Your task to perform on an android device: Do I have any events this weekend? Image 0: 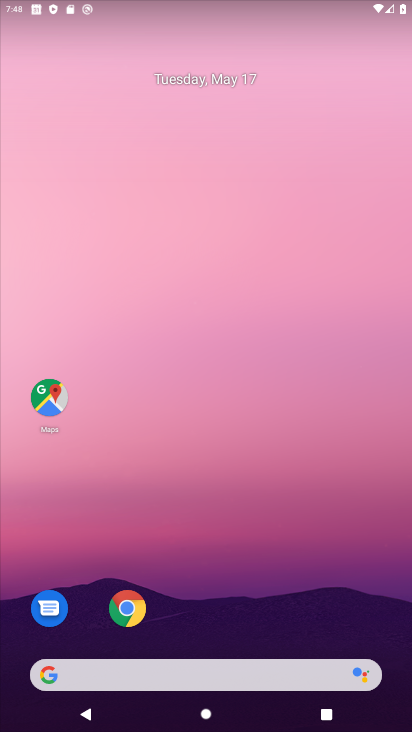
Step 0: drag from (358, 607) to (245, 229)
Your task to perform on an android device: Do I have any events this weekend? Image 1: 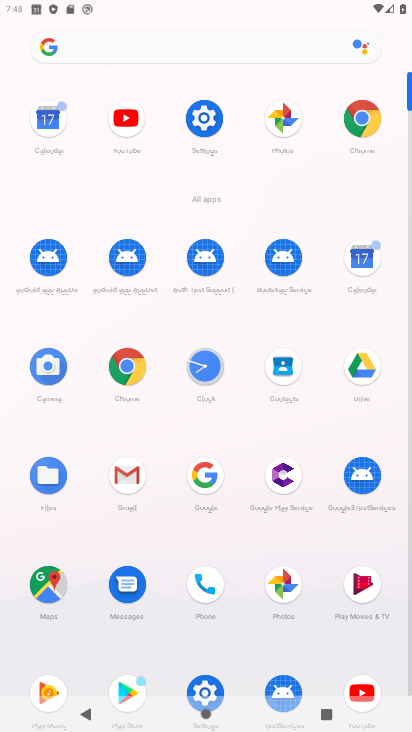
Step 1: click (359, 258)
Your task to perform on an android device: Do I have any events this weekend? Image 2: 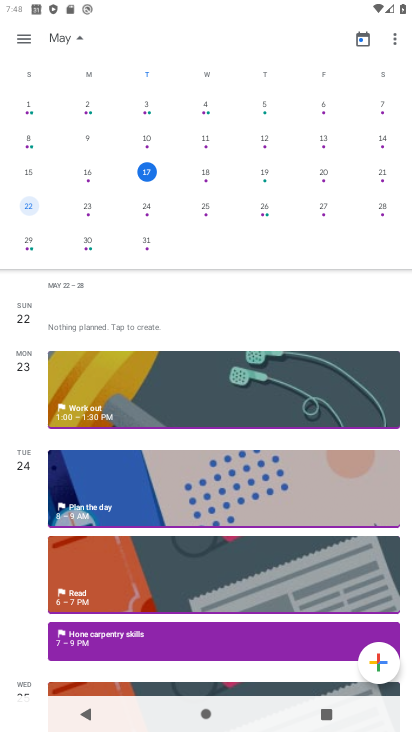
Step 2: click (143, 174)
Your task to perform on an android device: Do I have any events this weekend? Image 3: 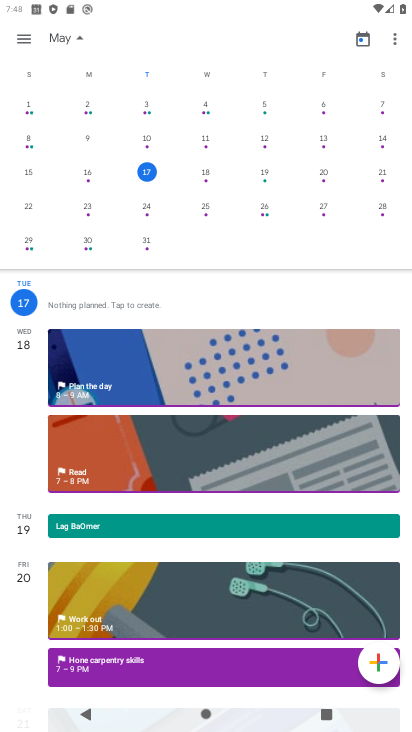
Step 3: task complete